Your task to perform on an android device: Go to Android settings Image 0: 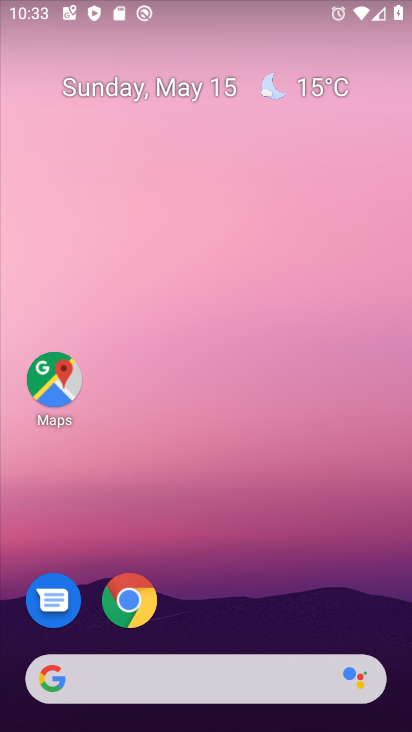
Step 0: drag from (331, 570) to (322, 182)
Your task to perform on an android device: Go to Android settings Image 1: 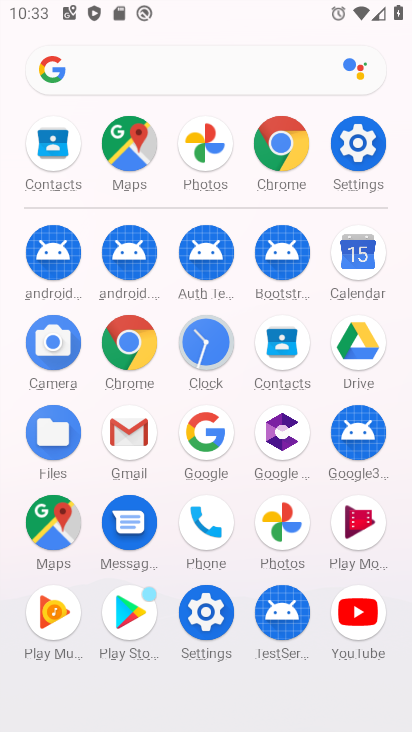
Step 1: click (353, 138)
Your task to perform on an android device: Go to Android settings Image 2: 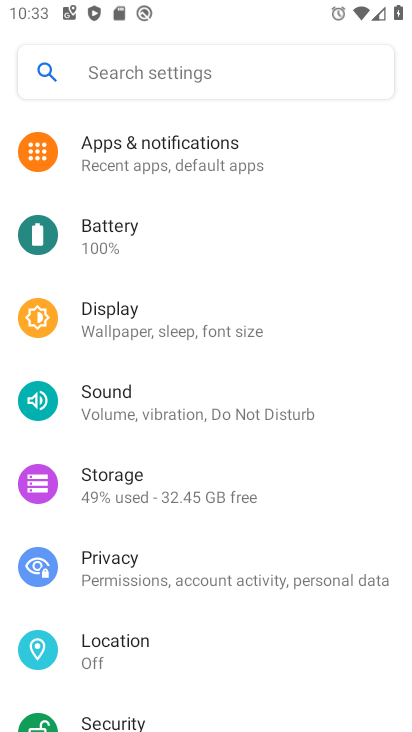
Step 2: drag from (296, 659) to (340, 327)
Your task to perform on an android device: Go to Android settings Image 3: 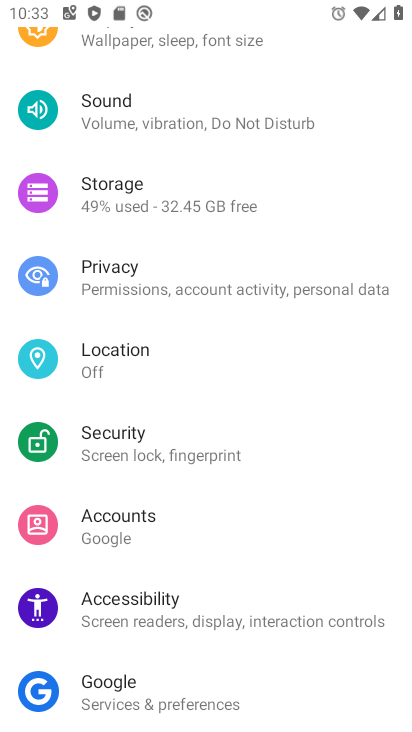
Step 3: drag from (297, 662) to (316, 424)
Your task to perform on an android device: Go to Android settings Image 4: 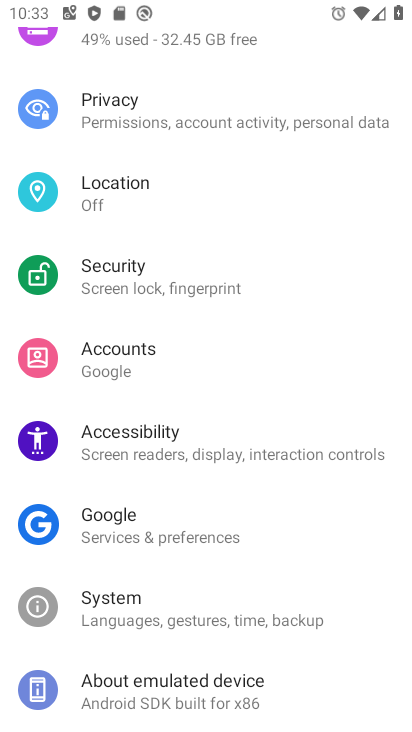
Step 4: click (210, 618)
Your task to perform on an android device: Go to Android settings Image 5: 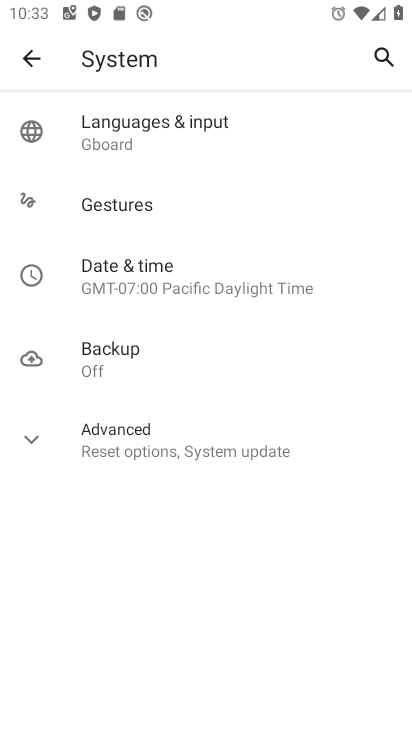
Step 5: click (180, 443)
Your task to perform on an android device: Go to Android settings Image 6: 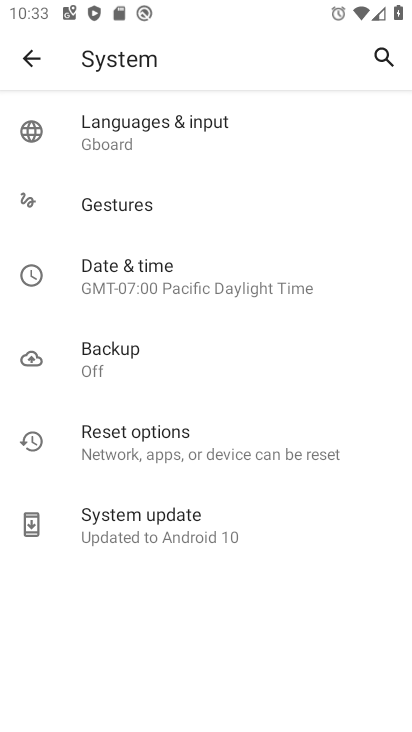
Step 6: click (186, 517)
Your task to perform on an android device: Go to Android settings Image 7: 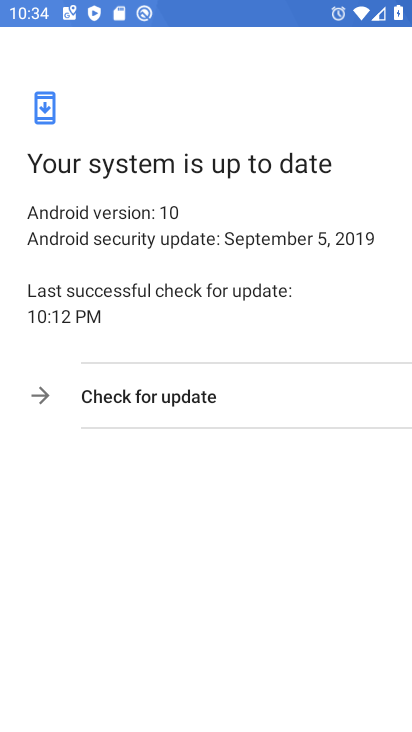
Step 7: task complete